Your task to perform on an android device: read, delete, or share a saved page in the chrome app Image 0: 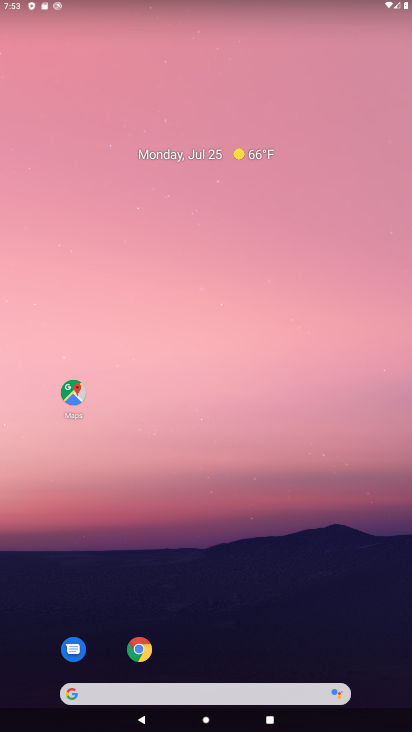
Step 0: drag from (233, 669) to (221, 228)
Your task to perform on an android device: read, delete, or share a saved page in the chrome app Image 1: 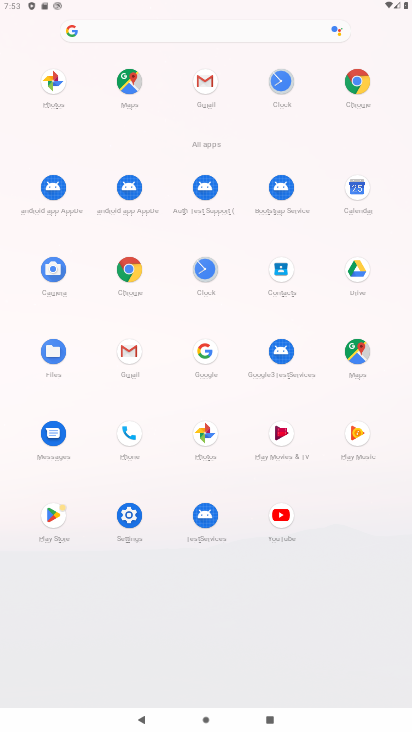
Step 1: click (358, 83)
Your task to perform on an android device: read, delete, or share a saved page in the chrome app Image 2: 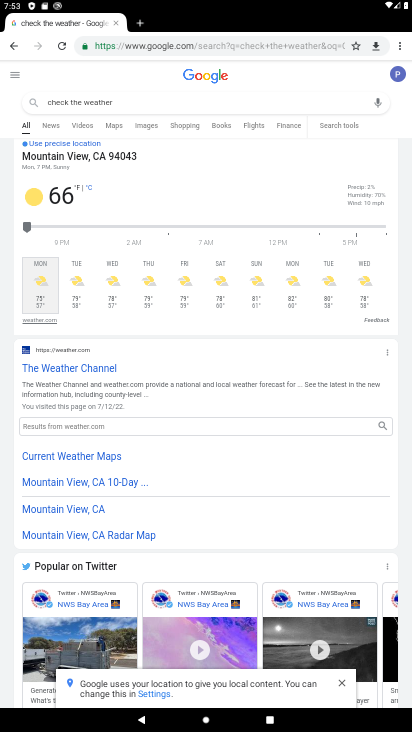
Step 2: click (401, 52)
Your task to perform on an android device: read, delete, or share a saved page in the chrome app Image 3: 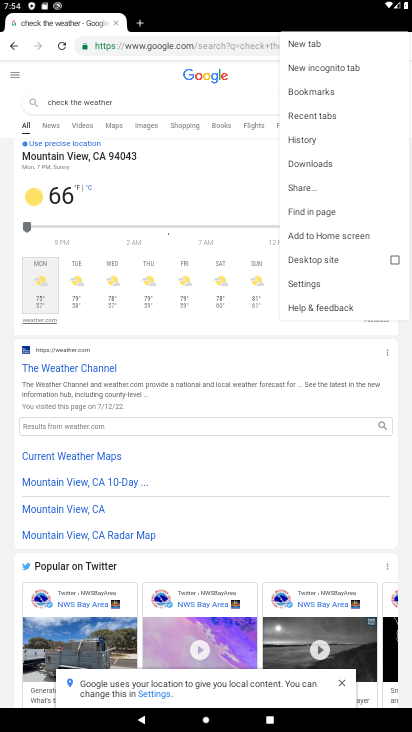
Step 3: click (323, 171)
Your task to perform on an android device: read, delete, or share a saved page in the chrome app Image 4: 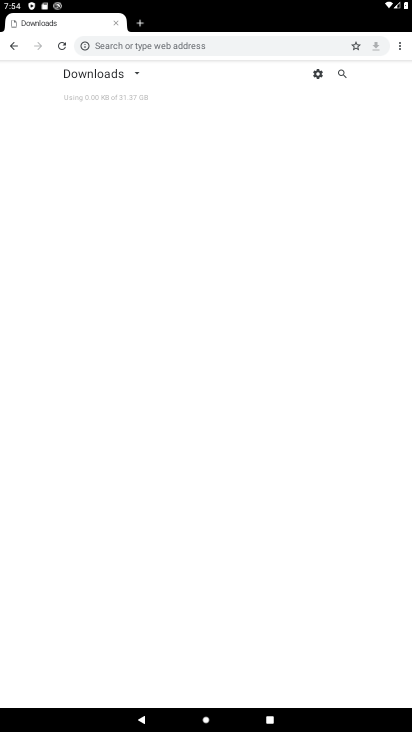
Step 4: click (125, 79)
Your task to perform on an android device: read, delete, or share a saved page in the chrome app Image 5: 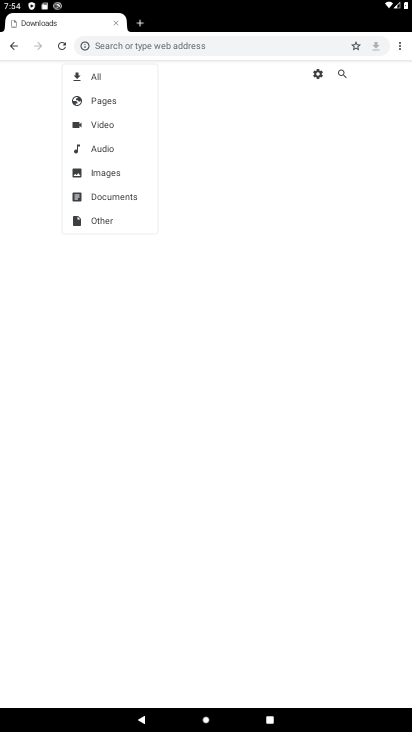
Step 5: click (114, 97)
Your task to perform on an android device: read, delete, or share a saved page in the chrome app Image 6: 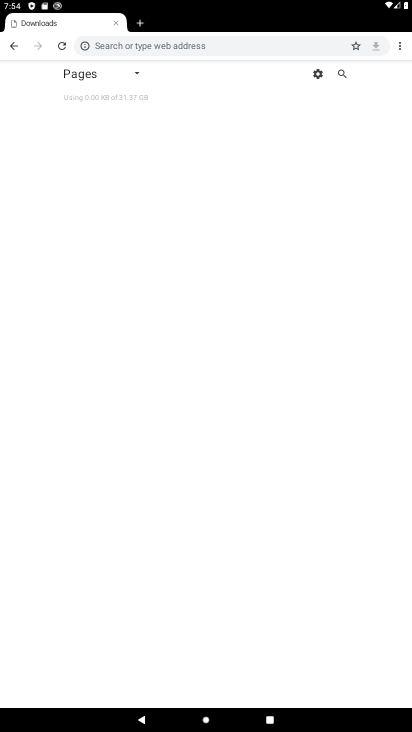
Step 6: task complete